Your task to perform on an android device: manage bookmarks in the chrome app Image 0: 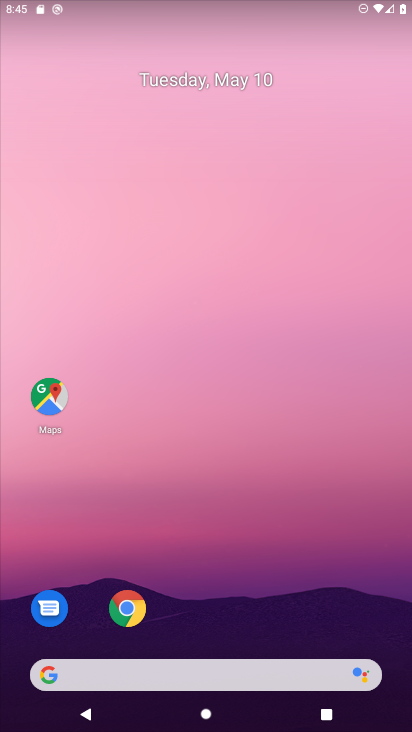
Step 0: drag from (374, 598) to (278, 41)
Your task to perform on an android device: manage bookmarks in the chrome app Image 1: 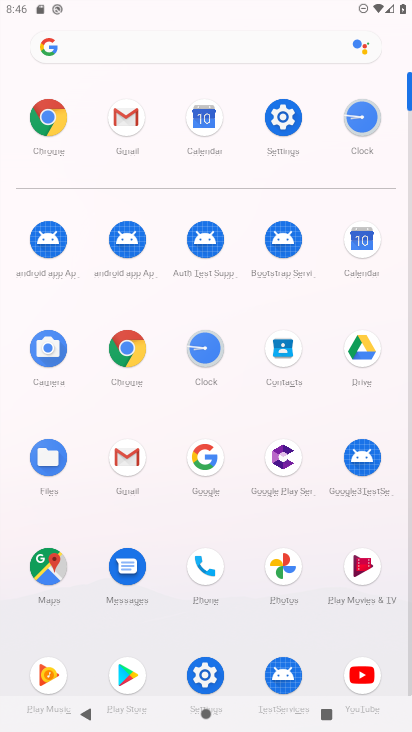
Step 1: click (114, 337)
Your task to perform on an android device: manage bookmarks in the chrome app Image 2: 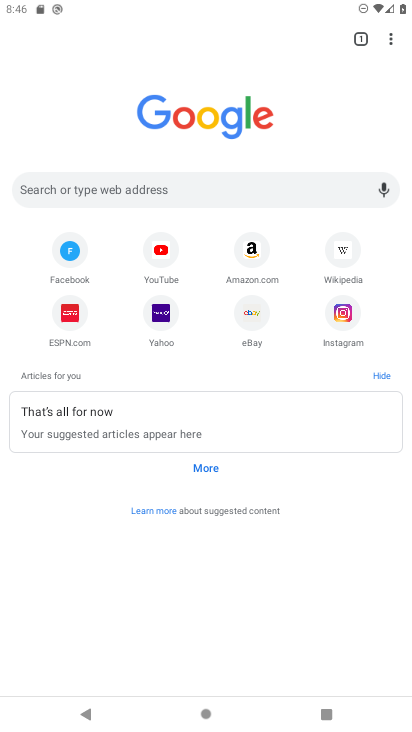
Step 2: task complete